Your task to perform on an android device: toggle improve location accuracy Image 0: 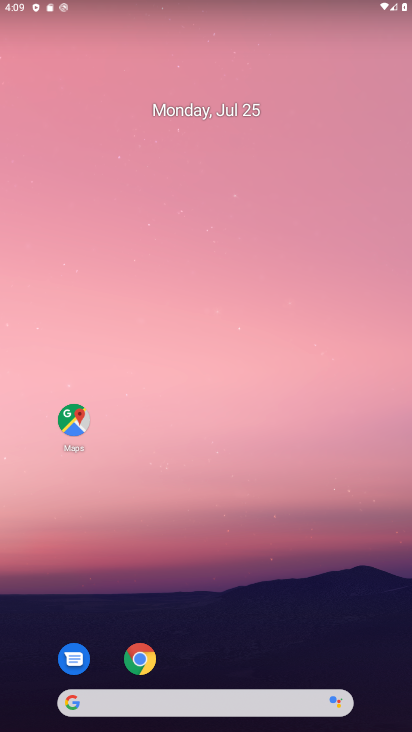
Step 0: click (203, 673)
Your task to perform on an android device: toggle improve location accuracy Image 1: 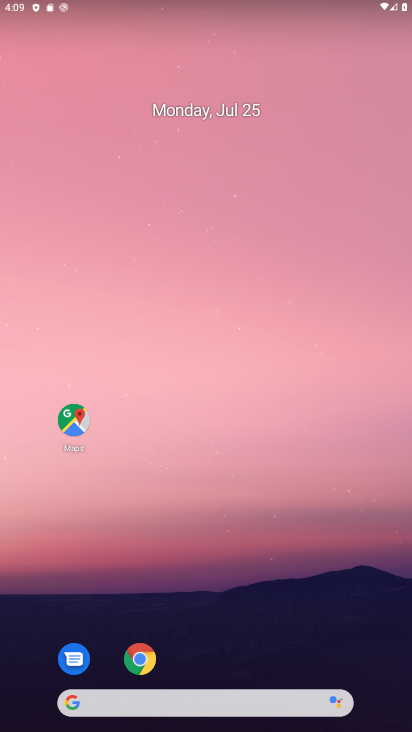
Step 1: drag from (187, 578) to (181, 99)
Your task to perform on an android device: toggle improve location accuracy Image 2: 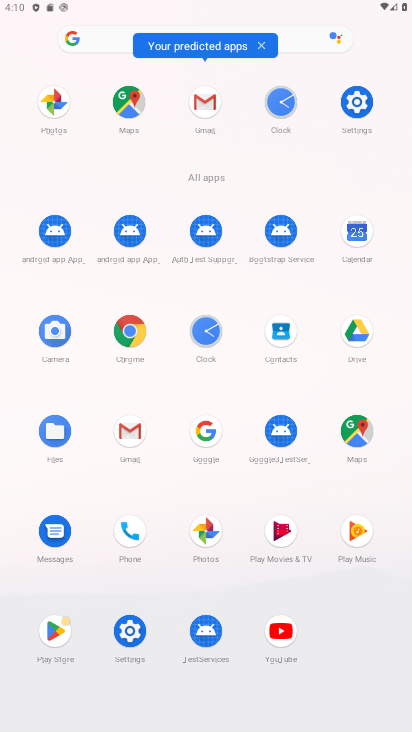
Step 2: click (350, 102)
Your task to perform on an android device: toggle improve location accuracy Image 3: 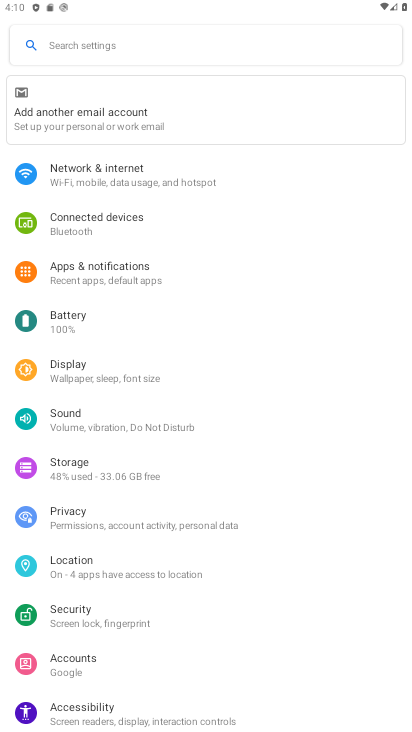
Step 3: click (61, 562)
Your task to perform on an android device: toggle improve location accuracy Image 4: 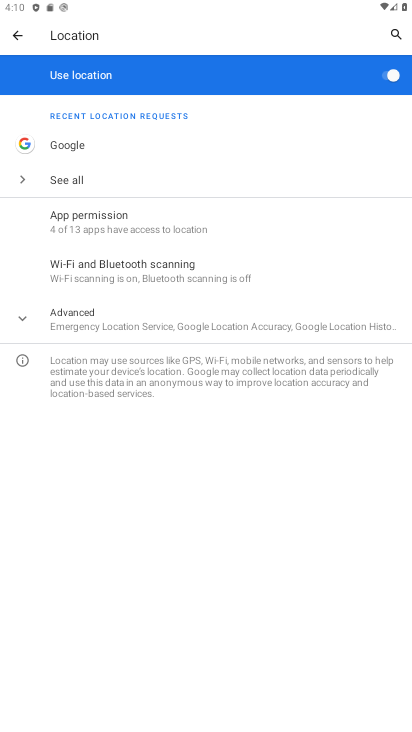
Step 4: click (116, 332)
Your task to perform on an android device: toggle improve location accuracy Image 5: 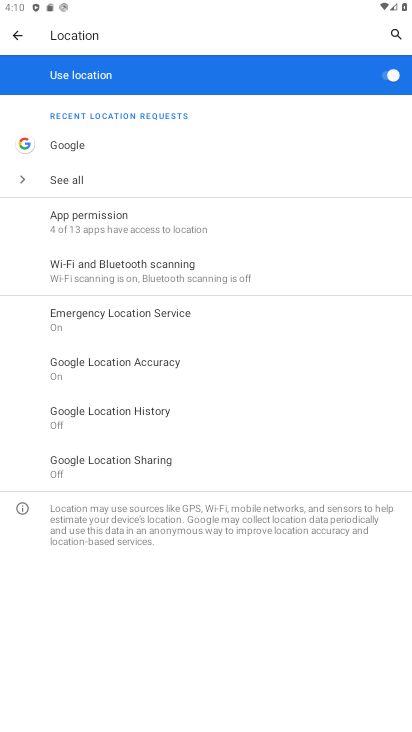
Step 5: click (127, 355)
Your task to perform on an android device: toggle improve location accuracy Image 6: 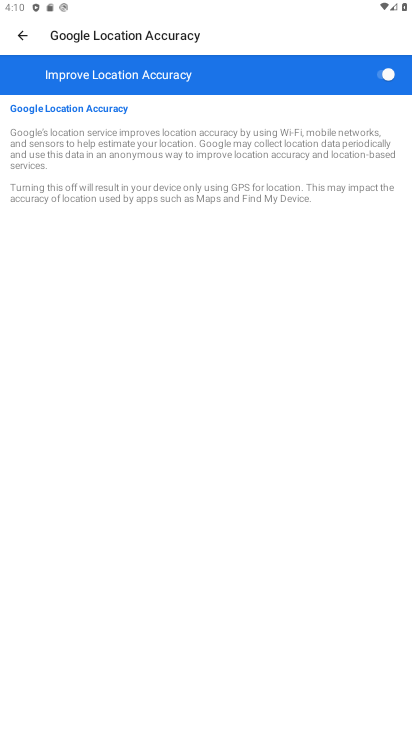
Step 6: click (381, 72)
Your task to perform on an android device: toggle improve location accuracy Image 7: 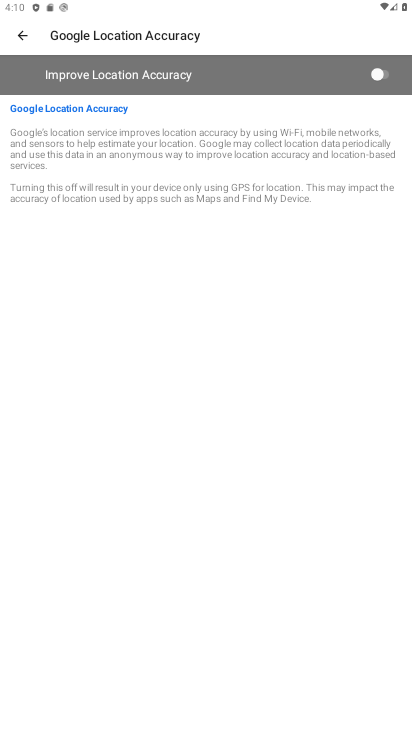
Step 7: task complete